Your task to perform on an android device: Show me popular games on the Play Store Image 0: 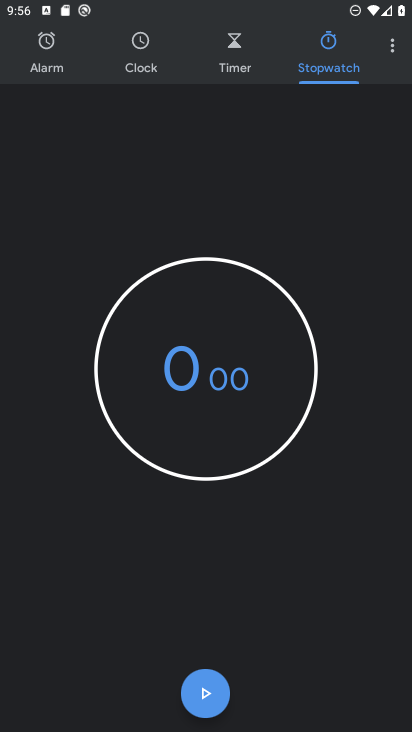
Step 0: press home button
Your task to perform on an android device: Show me popular games on the Play Store Image 1: 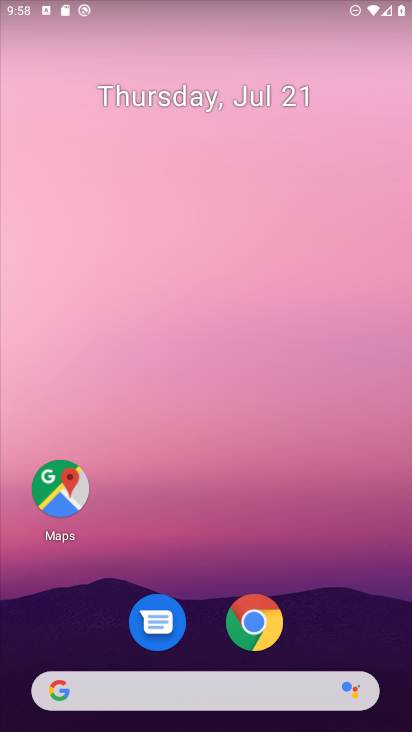
Step 1: click (188, 47)
Your task to perform on an android device: Show me popular games on the Play Store Image 2: 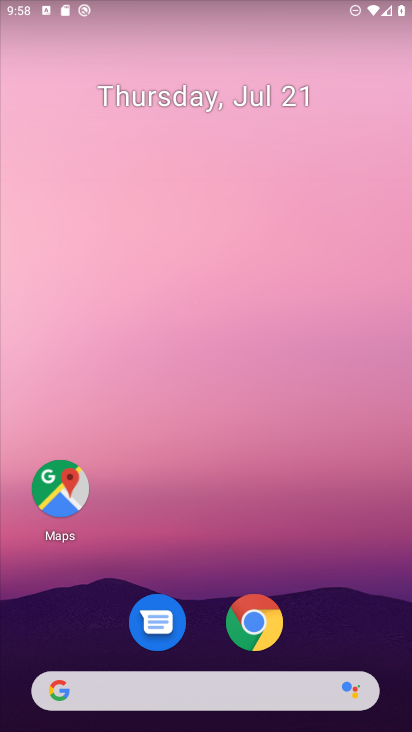
Step 2: drag from (287, 730) to (172, 3)
Your task to perform on an android device: Show me popular games on the Play Store Image 3: 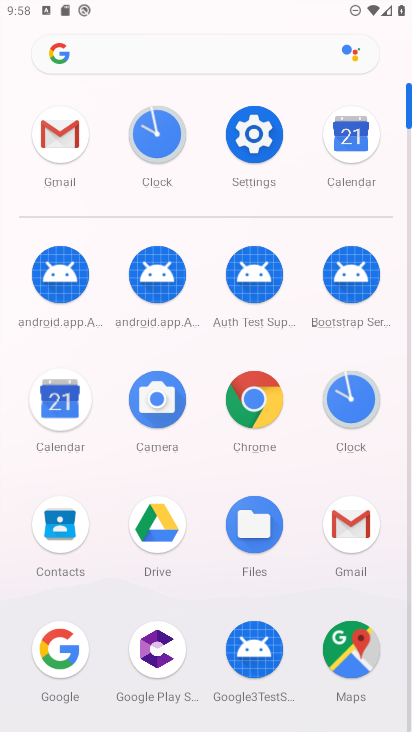
Step 3: drag from (250, 489) to (279, 69)
Your task to perform on an android device: Show me popular games on the Play Store Image 4: 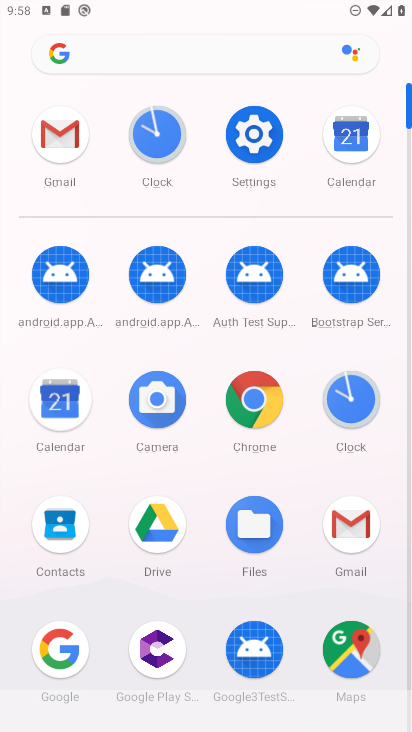
Step 4: drag from (192, 614) to (395, 16)
Your task to perform on an android device: Show me popular games on the Play Store Image 5: 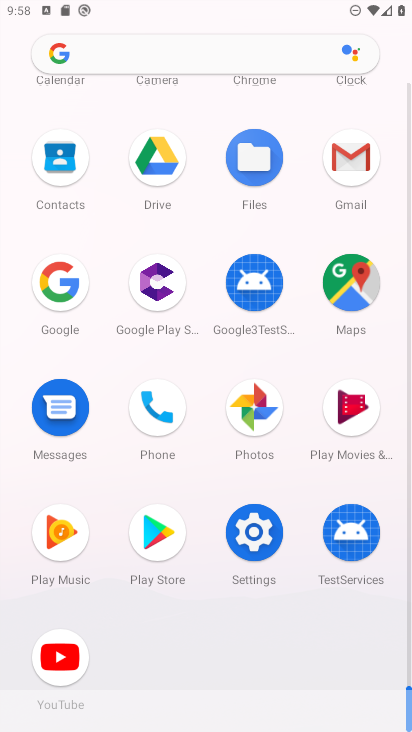
Step 5: click (144, 537)
Your task to perform on an android device: Show me popular games on the Play Store Image 6: 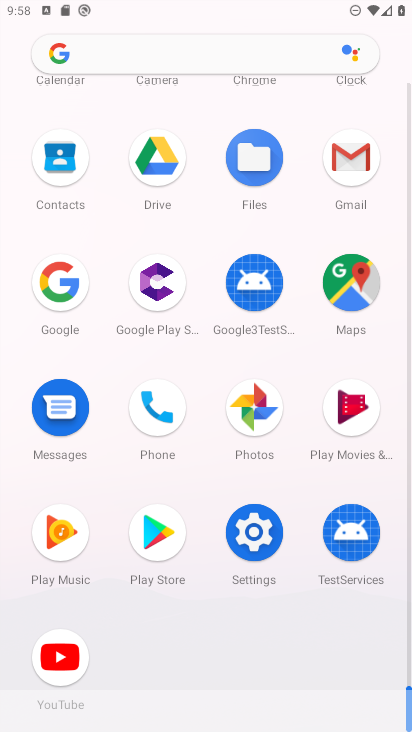
Step 6: click (144, 537)
Your task to perform on an android device: Show me popular games on the Play Store Image 7: 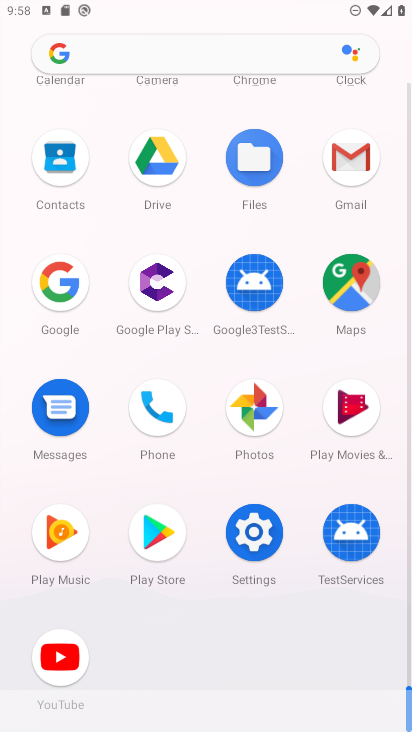
Step 7: click (144, 537)
Your task to perform on an android device: Show me popular games on the Play Store Image 8: 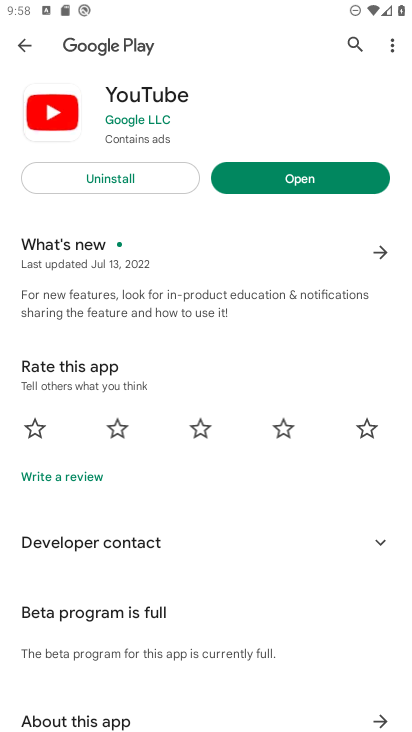
Step 8: click (18, 38)
Your task to perform on an android device: Show me popular games on the Play Store Image 9: 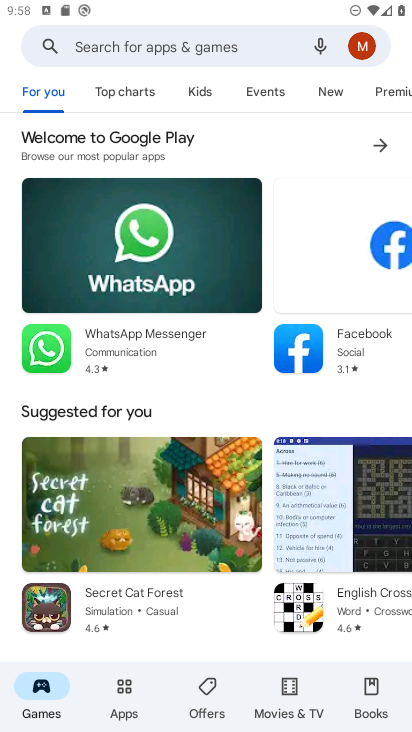
Step 9: task complete